Your task to perform on an android device: turn pop-ups off in chrome Image 0: 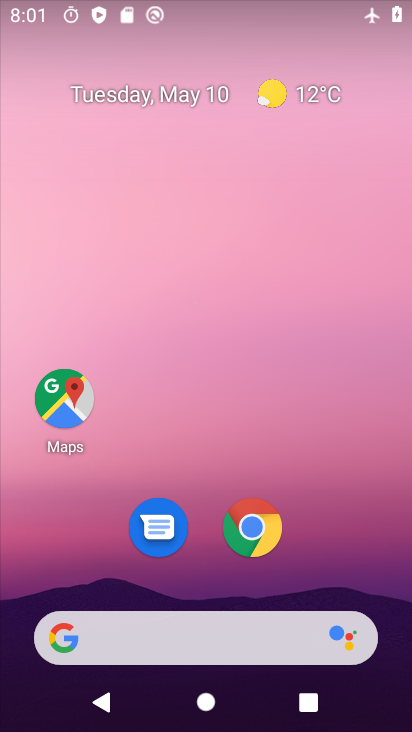
Step 0: click (237, 545)
Your task to perform on an android device: turn pop-ups off in chrome Image 1: 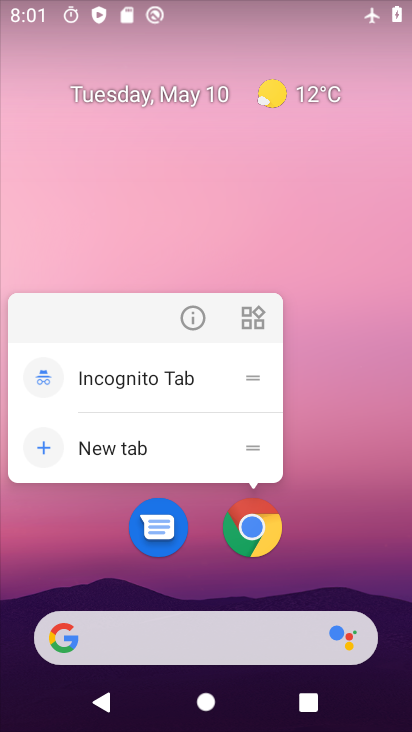
Step 1: click (249, 544)
Your task to perform on an android device: turn pop-ups off in chrome Image 2: 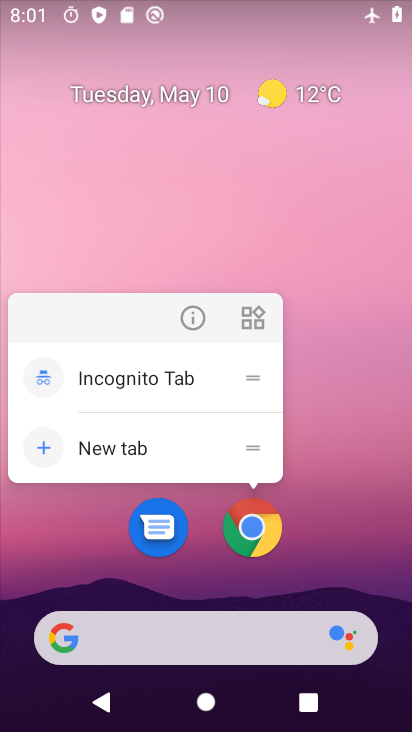
Step 2: click (258, 536)
Your task to perform on an android device: turn pop-ups off in chrome Image 3: 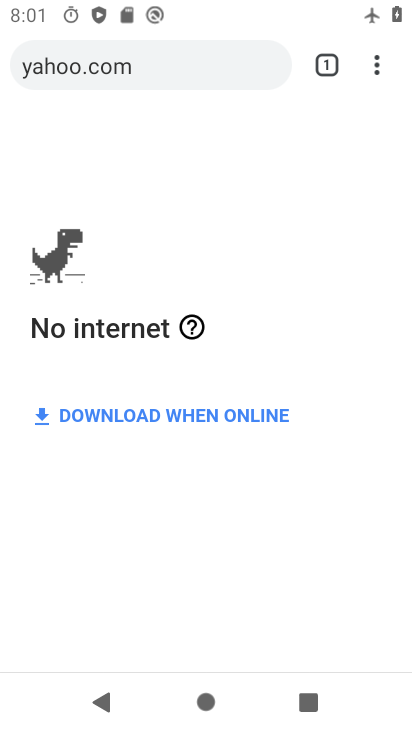
Step 3: drag from (379, 69) to (211, 580)
Your task to perform on an android device: turn pop-ups off in chrome Image 4: 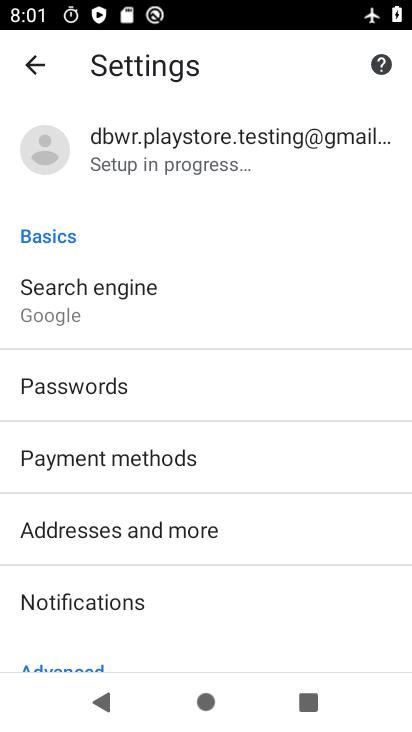
Step 4: drag from (211, 580) to (253, 214)
Your task to perform on an android device: turn pop-ups off in chrome Image 5: 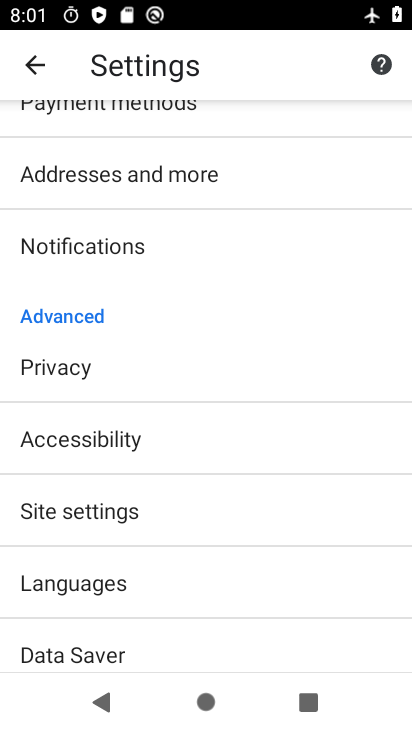
Step 5: click (161, 516)
Your task to perform on an android device: turn pop-ups off in chrome Image 6: 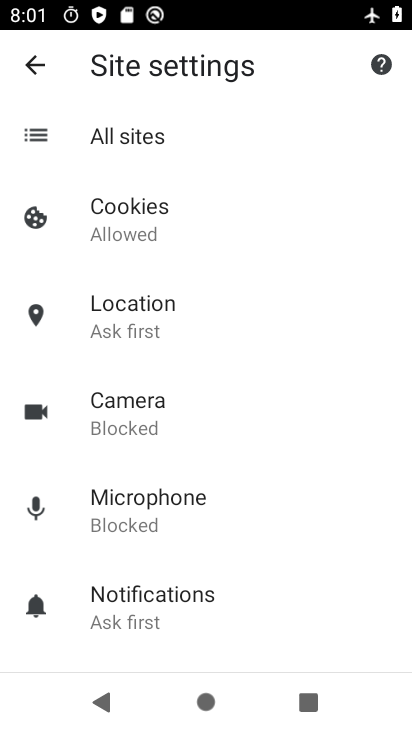
Step 6: drag from (193, 558) to (226, 172)
Your task to perform on an android device: turn pop-ups off in chrome Image 7: 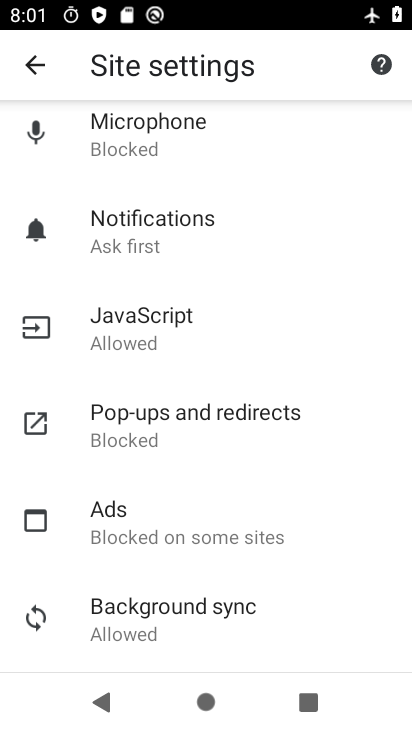
Step 7: click (238, 420)
Your task to perform on an android device: turn pop-ups off in chrome Image 8: 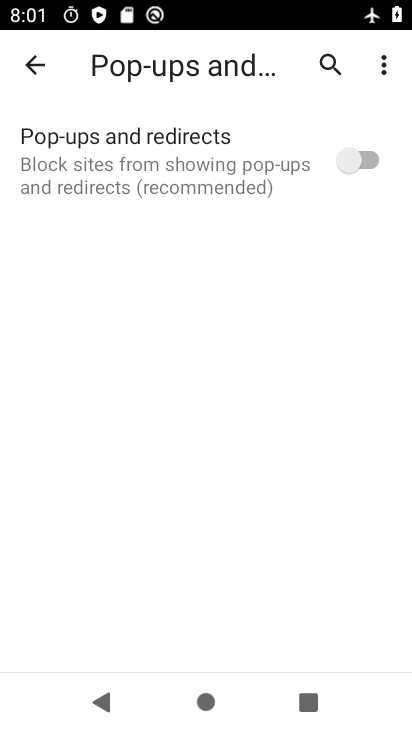
Step 8: task complete